Your task to perform on an android device: Search for Mexican restaurants on Maps Image 0: 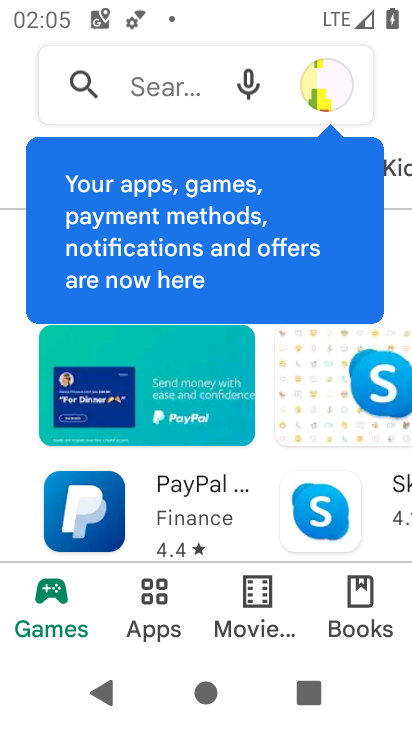
Step 0: press home button
Your task to perform on an android device: Search for Mexican restaurants on Maps Image 1: 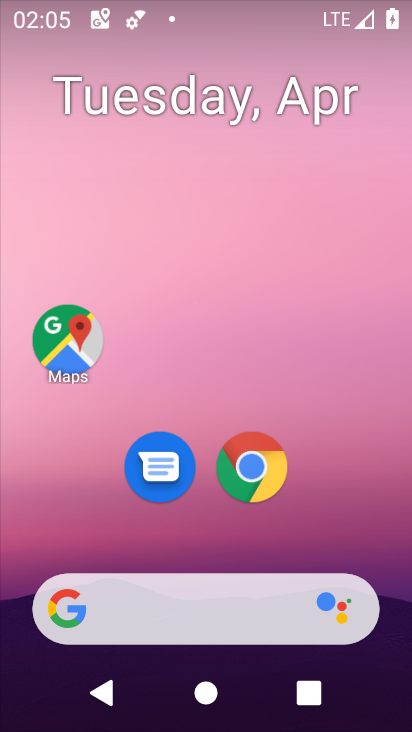
Step 1: drag from (388, 544) to (380, 92)
Your task to perform on an android device: Search for Mexican restaurants on Maps Image 2: 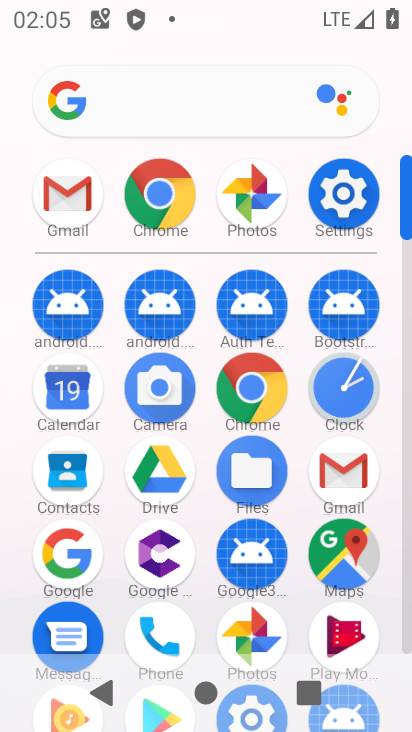
Step 2: click (344, 568)
Your task to perform on an android device: Search for Mexican restaurants on Maps Image 3: 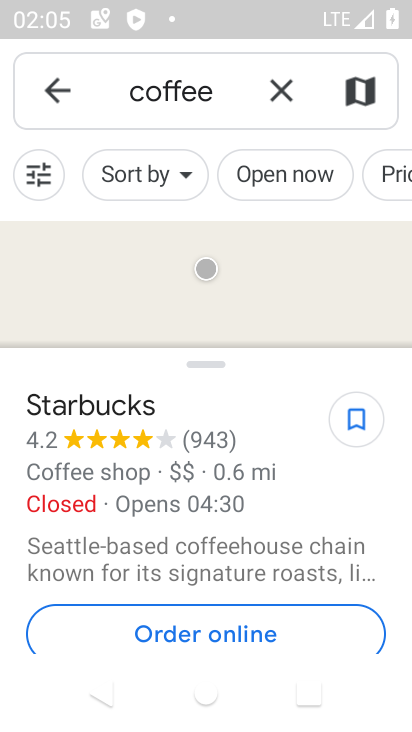
Step 3: click (284, 83)
Your task to perform on an android device: Search for Mexican restaurants on Maps Image 4: 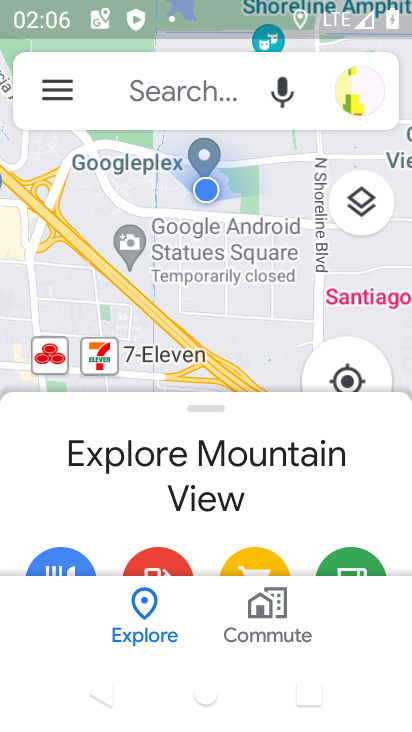
Step 4: type "mexcian restaurants"
Your task to perform on an android device: Search for Mexican restaurants on Maps Image 5: 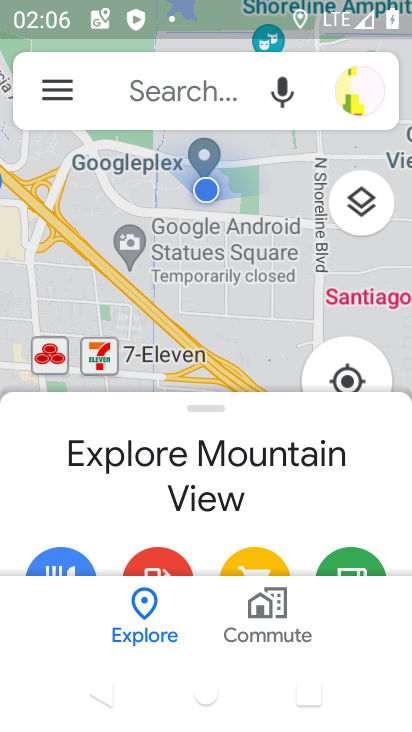
Step 5: click (169, 96)
Your task to perform on an android device: Search for Mexican restaurants on Maps Image 6: 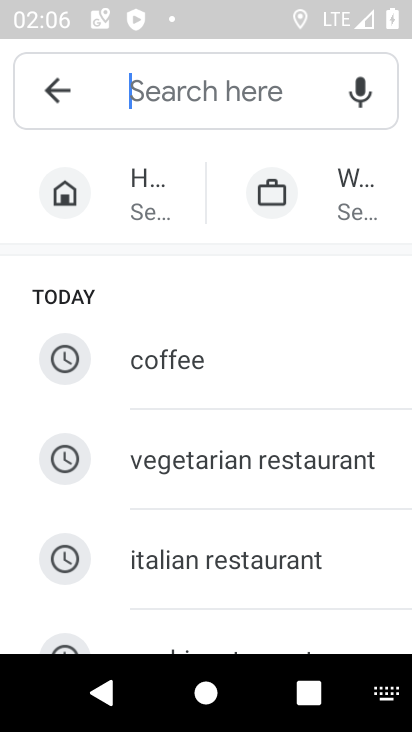
Step 6: type "mexcian "
Your task to perform on an android device: Search for Mexican restaurants on Maps Image 7: 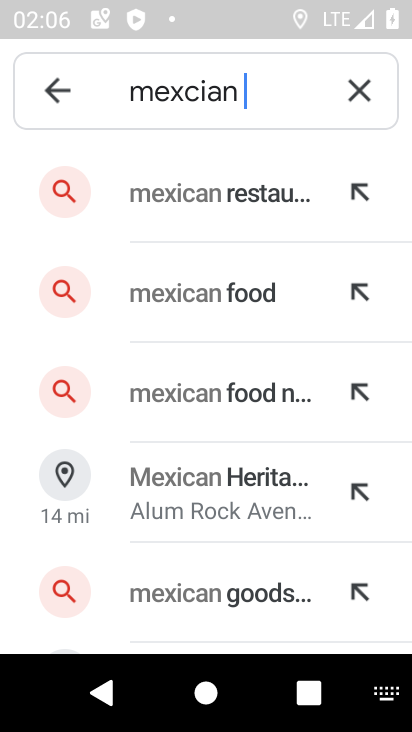
Step 7: click (241, 208)
Your task to perform on an android device: Search for Mexican restaurants on Maps Image 8: 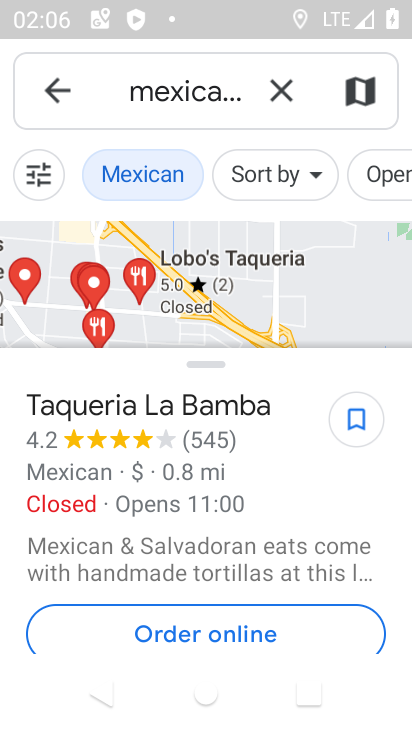
Step 8: task complete